Your task to perform on an android device: Show me productivity apps on the Play Store Image 0: 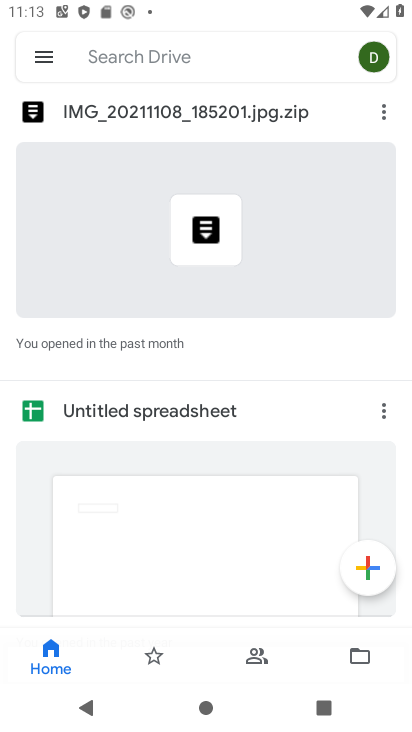
Step 0: press home button
Your task to perform on an android device: Show me productivity apps on the Play Store Image 1: 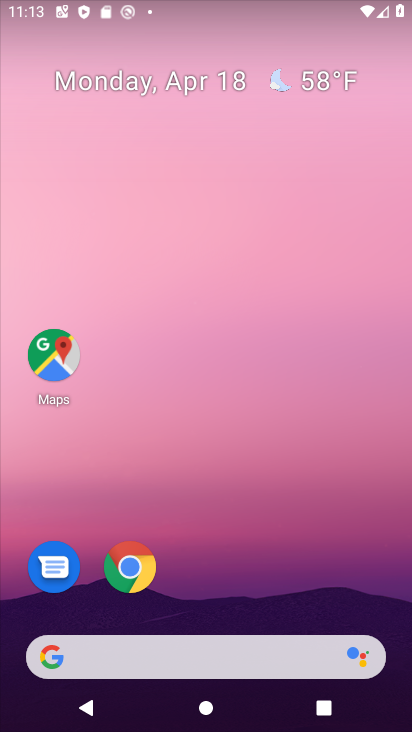
Step 1: drag from (379, 609) to (361, 101)
Your task to perform on an android device: Show me productivity apps on the Play Store Image 2: 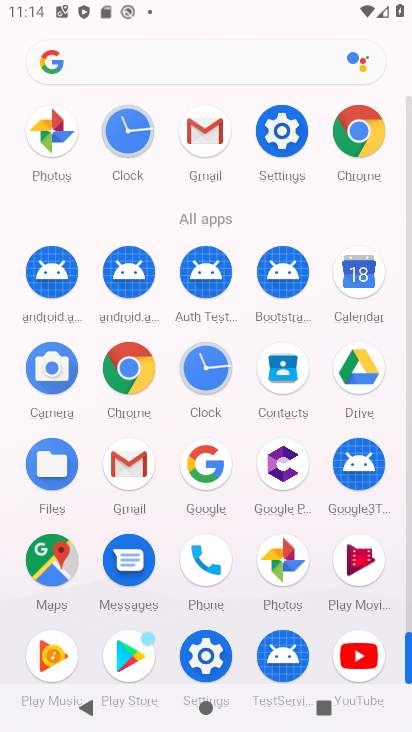
Step 2: click (136, 649)
Your task to perform on an android device: Show me productivity apps on the Play Store Image 3: 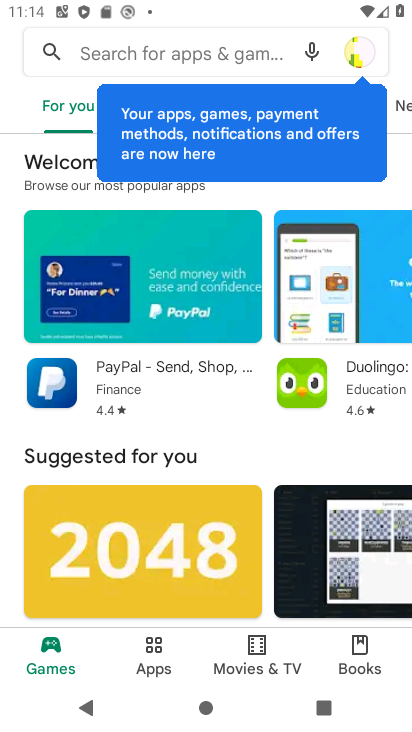
Step 3: drag from (237, 447) to (217, 163)
Your task to perform on an android device: Show me productivity apps on the Play Store Image 4: 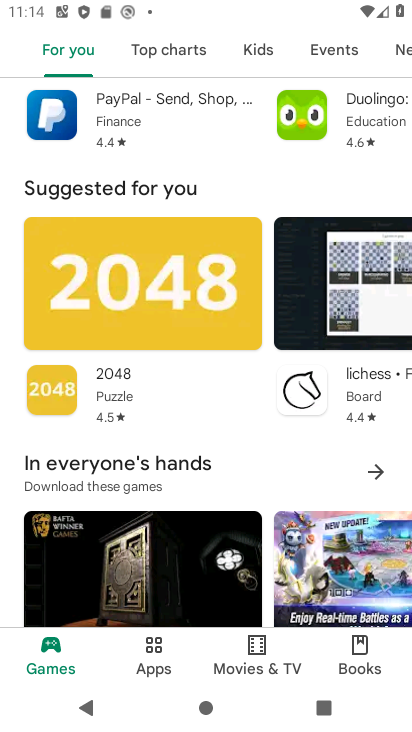
Step 4: drag from (217, 166) to (213, 335)
Your task to perform on an android device: Show me productivity apps on the Play Store Image 5: 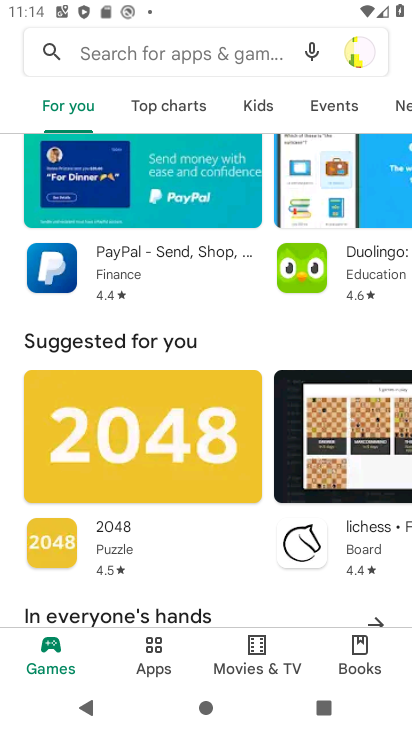
Step 5: click (155, 640)
Your task to perform on an android device: Show me productivity apps on the Play Store Image 6: 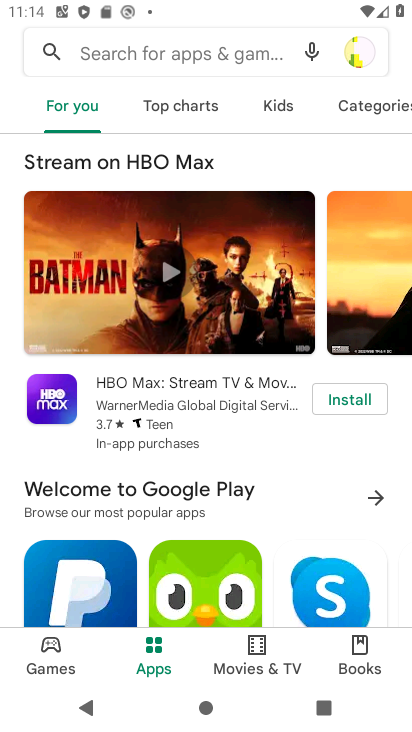
Step 6: click (373, 101)
Your task to perform on an android device: Show me productivity apps on the Play Store Image 7: 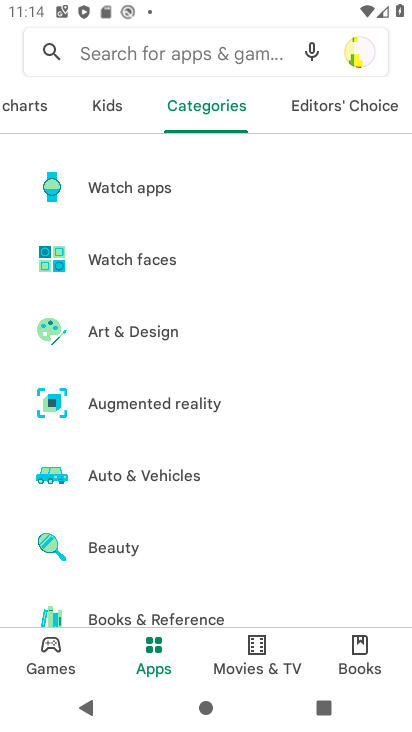
Step 7: drag from (189, 592) to (232, 328)
Your task to perform on an android device: Show me productivity apps on the Play Store Image 8: 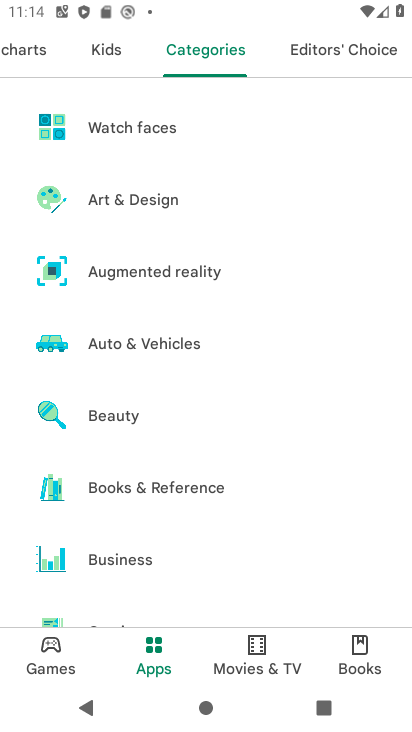
Step 8: drag from (236, 573) to (240, 339)
Your task to perform on an android device: Show me productivity apps on the Play Store Image 9: 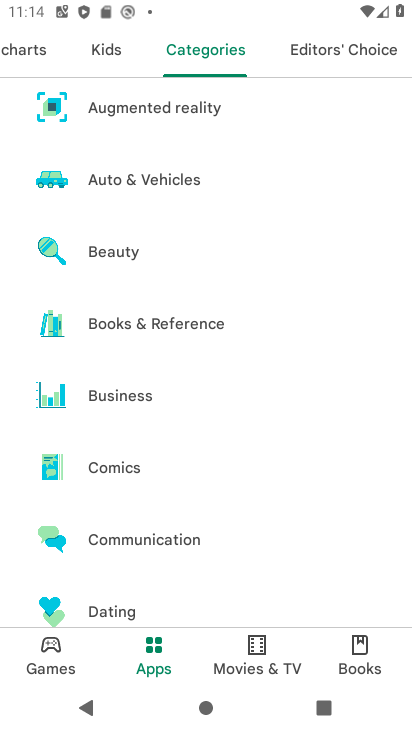
Step 9: drag from (226, 582) to (233, 248)
Your task to perform on an android device: Show me productivity apps on the Play Store Image 10: 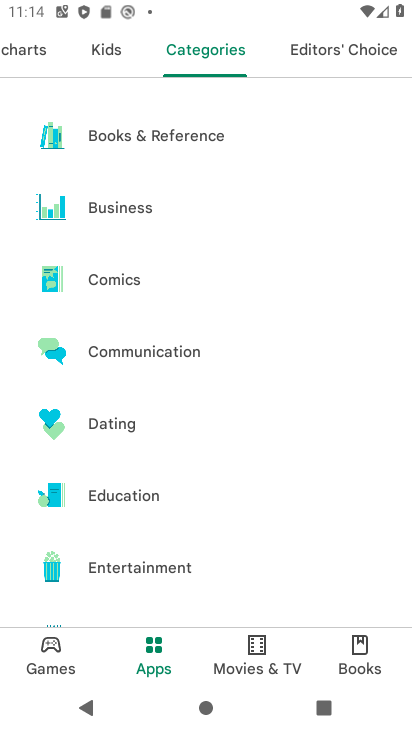
Step 10: drag from (203, 506) to (213, 242)
Your task to perform on an android device: Show me productivity apps on the Play Store Image 11: 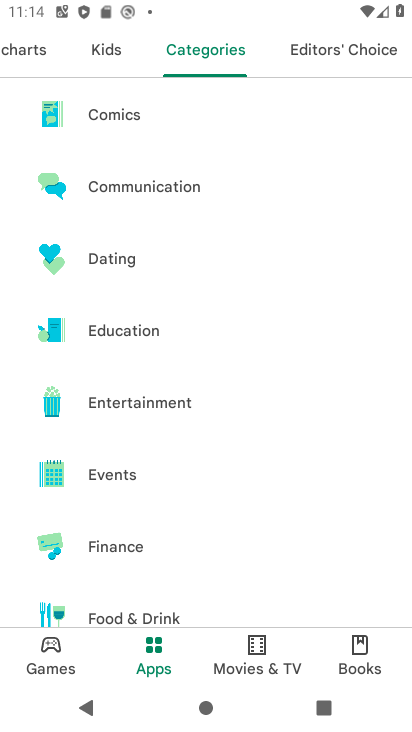
Step 11: drag from (201, 543) to (219, 284)
Your task to perform on an android device: Show me productivity apps on the Play Store Image 12: 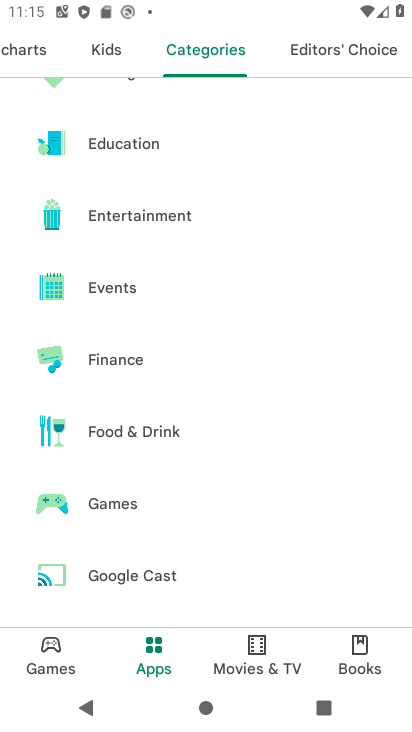
Step 12: drag from (192, 562) to (212, 275)
Your task to perform on an android device: Show me productivity apps on the Play Store Image 13: 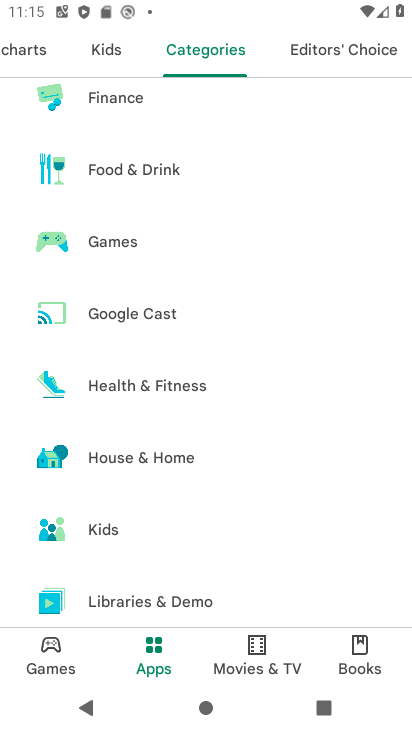
Step 13: drag from (193, 566) to (188, 205)
Your task to perform on an android device: Show me productivity apps on the Play Store Image 14: 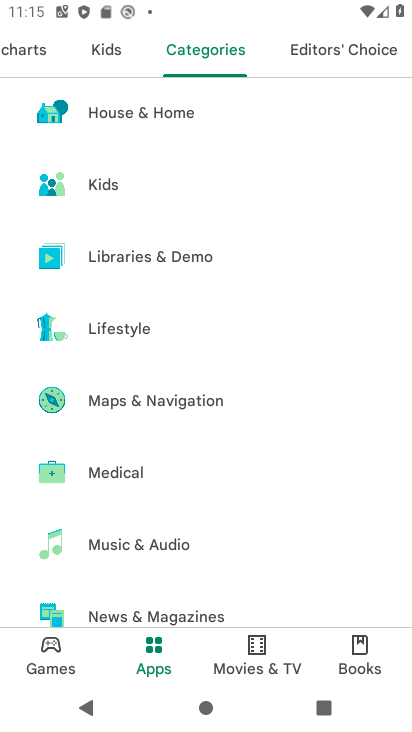
Step 14: drag from (235, 556) to (260, 203)
Your task to perform on an android device: Show me productivity apps on the Play Store Image 15: 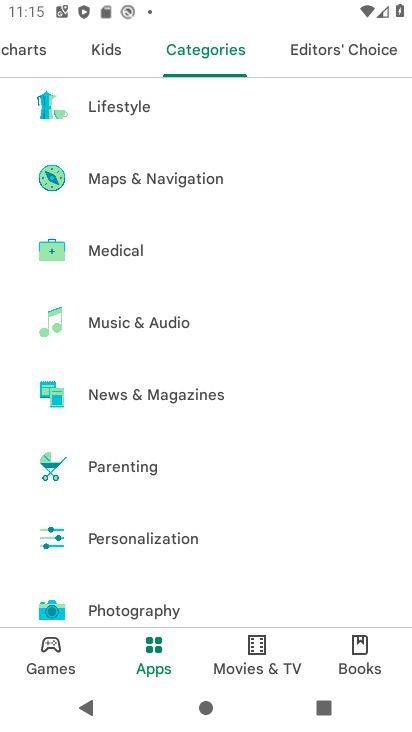
Step 15: drag from (212, 580) to (248, 313)
Your task to perform on an android device: Show me productivity apps on the Play Store Image 16: 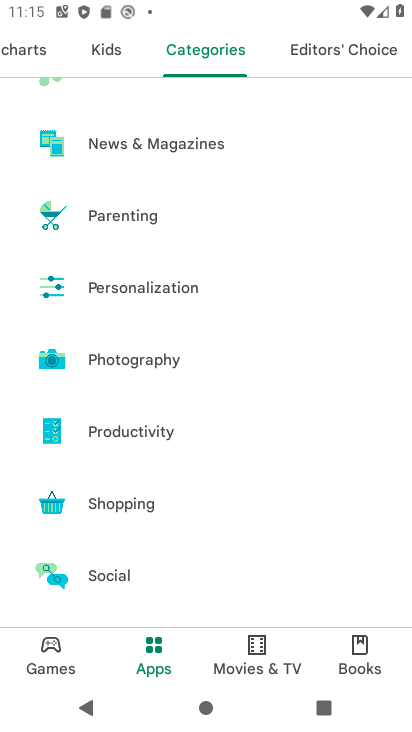
Step 16: click (131, 423)
Your task to perform on an android device: Show me productivity apps on the Play Store Image 17: 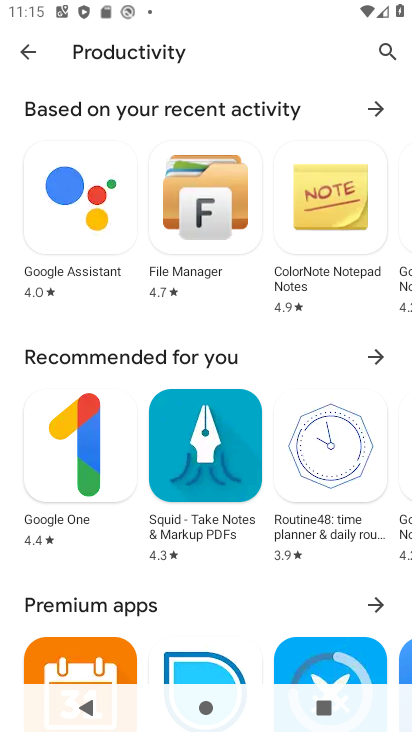
Step 17: task complete